Your task to perform on an android device: Open calendar and show me the third week of next month Image 0: 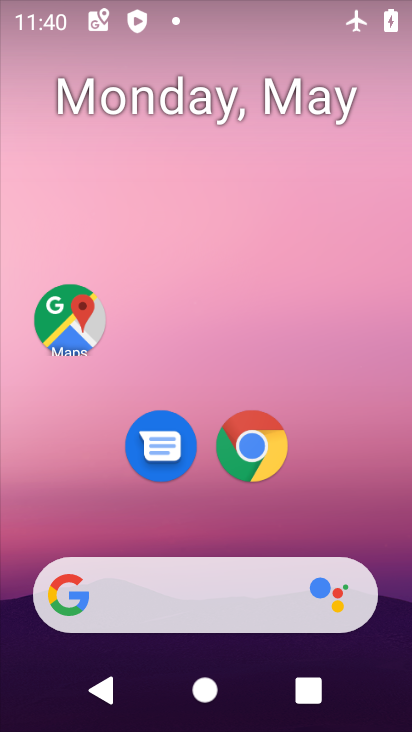
Step 0: drag from (329, 492) to (274, 127)
Your task to perform on an android device: Open calendar and show me the third week of next month Image 1: 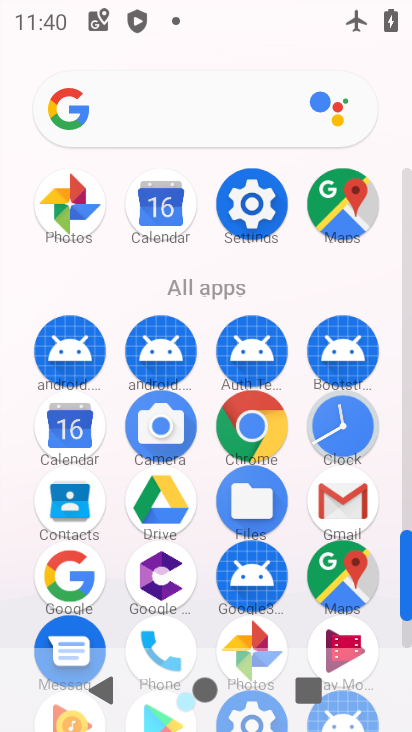
Step 1: click (76, 429)
Your task to perform on an android device: Open calendar and show me the third week of next month Image 2: 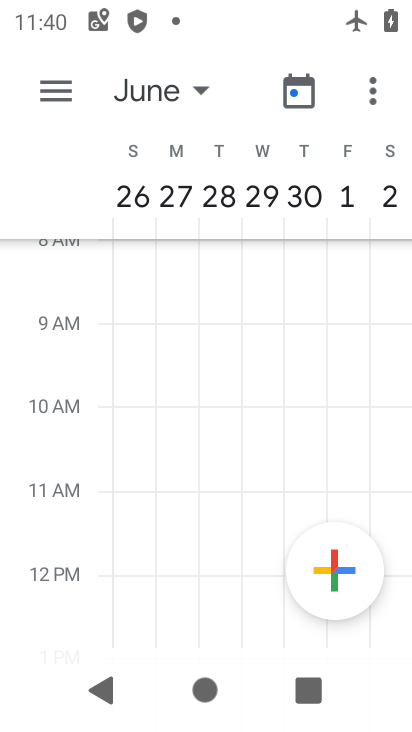
Step 2: click (302, 93)
Your task to perform on an android device: Open calendar and show me the third week of next month Image 3: 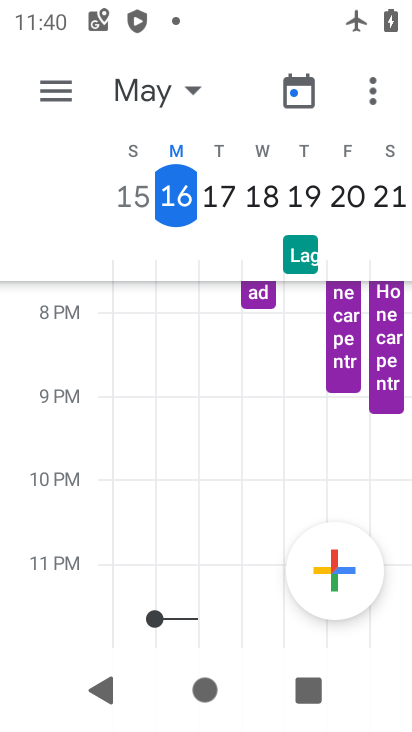
Step 3: click (191, 94)
Your task to perform on an android device: Open calendar and show me the third week of next month Image 4: 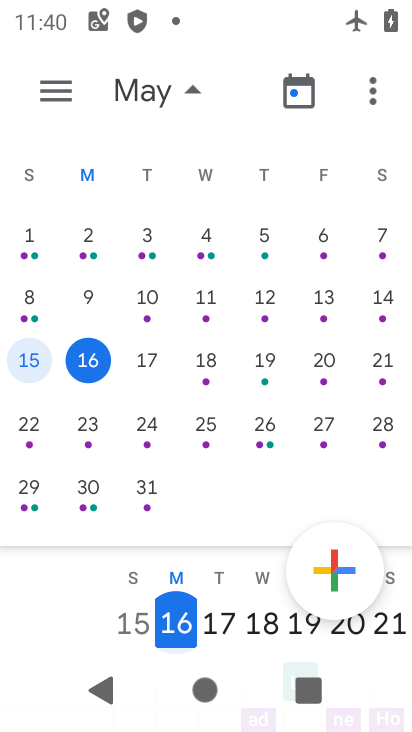
Step 4: drag from (342, 329) to (24, 320)
Your task to perform on an android device: Open calendar and show me the third week of next month Image 5: 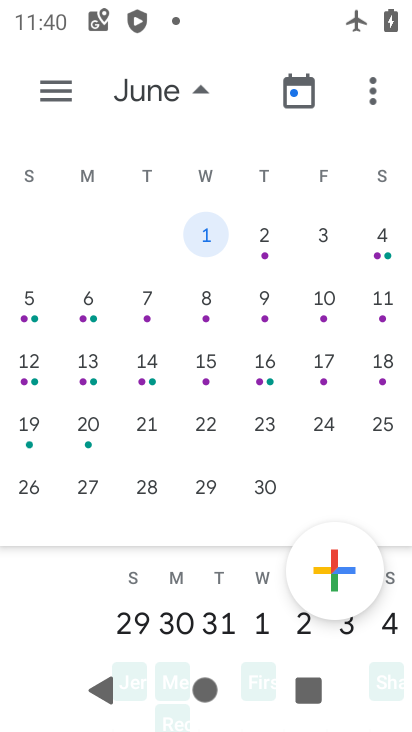
Step 5: click (88, 424)
Your task to perform on an android device: Open calendar and show me the third week of next month Image 6: 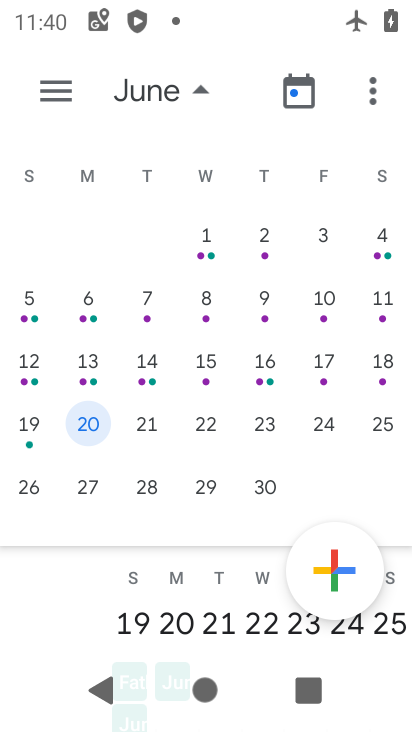
Step 6: click (47, 87)
Your task to perform on an android device: Open calendar and show me the third week of next month Image 7: 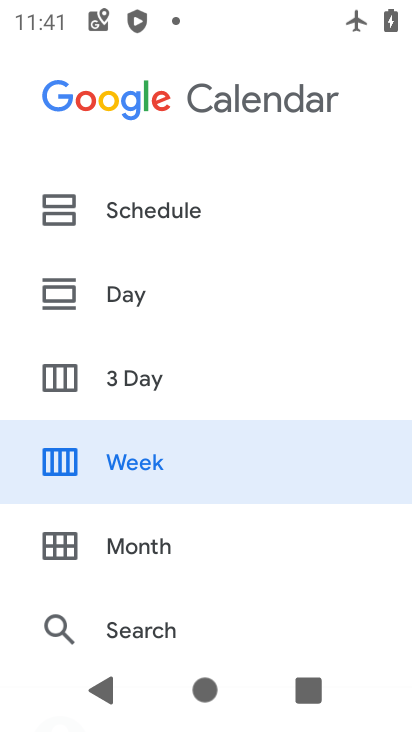
Step 7: click (150, 463)
Your task to perform on an android device: Open calendar and show me the third week of next month Image 8: 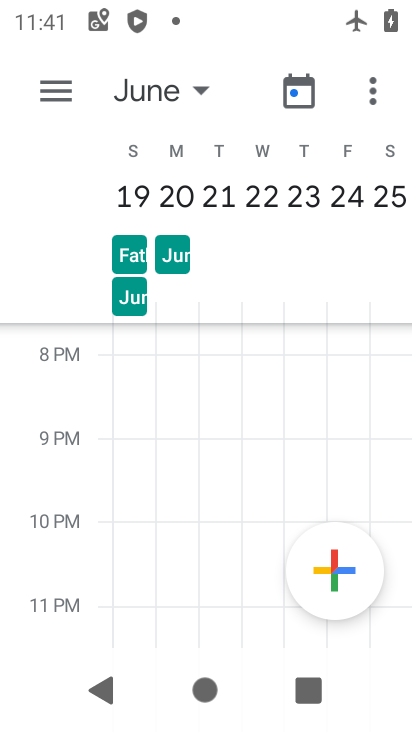
Step 8: task complete